Your task to perform on an android device: Go to CNN.com Image 0: 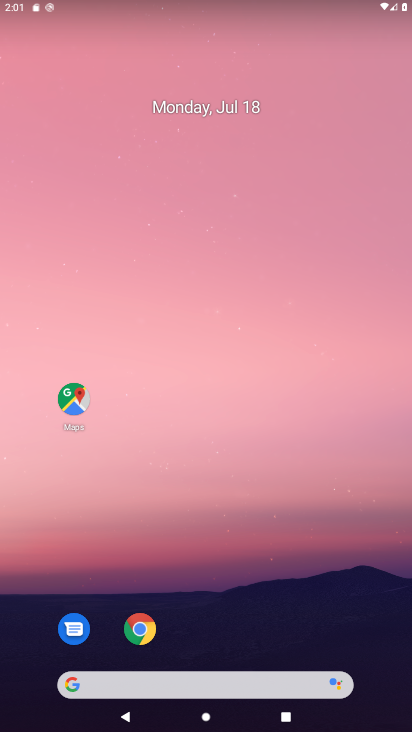
Step 0: click (76, 410)
Your task to perform on an android device: Go to CNN.com Image 1: 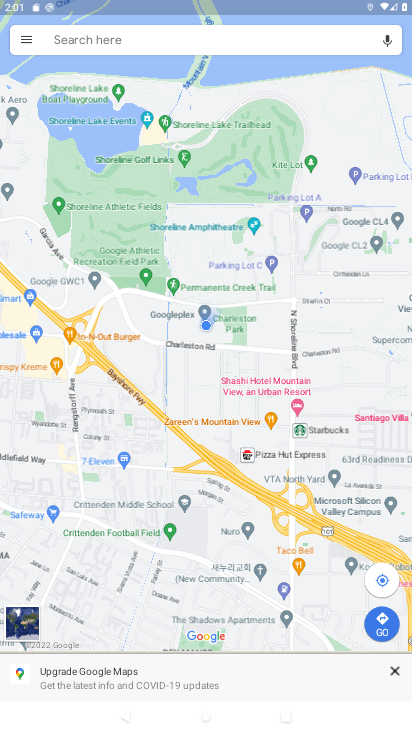
Step 1: task complete